Your task to perform on an android device: turn on translation in the chrome app Image 0: 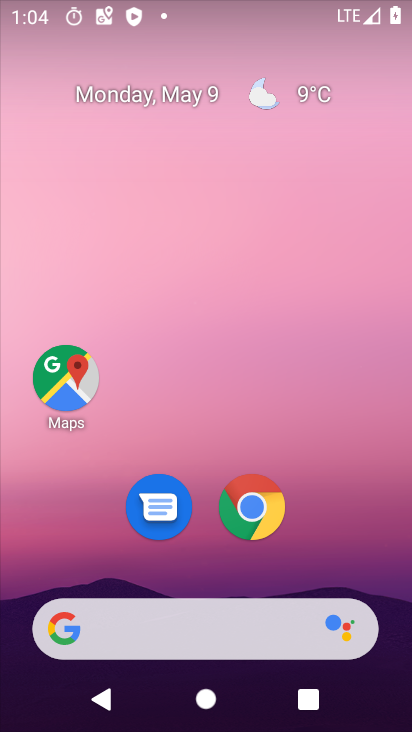
Step 0: click (246, 504)
Your task to perform on an android device: turn on translation in the chrome app Image 1: 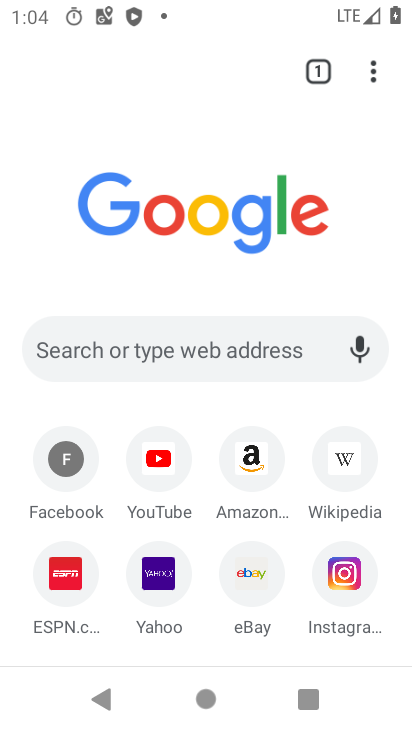
Step 1: click (373, 81)
Your task to perform on an android device: turn on translation in the chrome app Image 2: 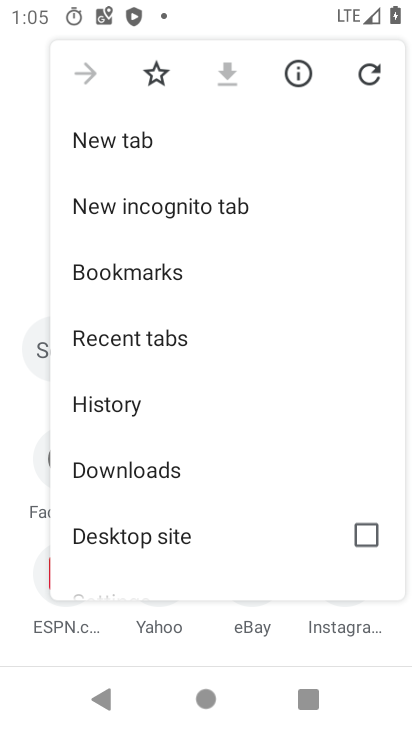
Step 2: drag from (172, 512) to (158, 242)
Your task to perform on an android device: turn on translation in the chrome app Image 3: 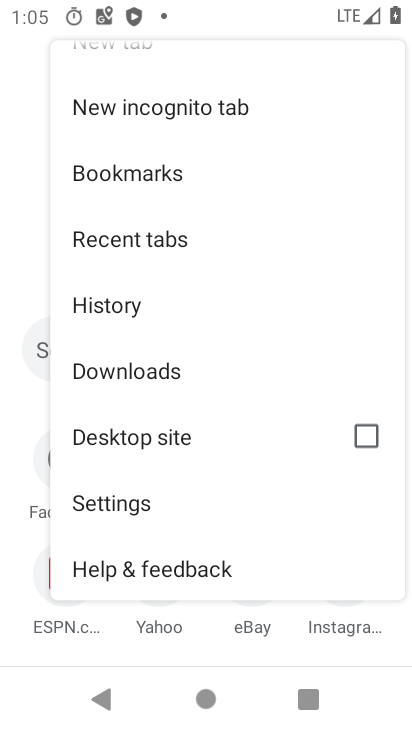
Step 3: click (115, 499)
Your task to perform on an android device: turn on translation in the chrome app Image 4: 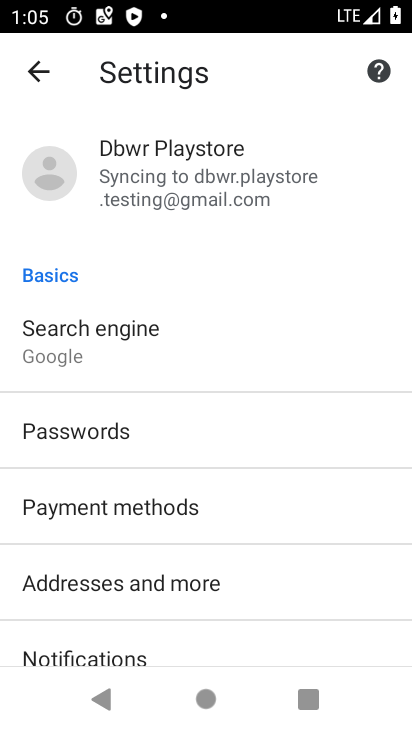
Step 4: drag from (193, 650) to (199, 319)
Your task to perform on an android device: turn on translation in the chrome app Image 5: 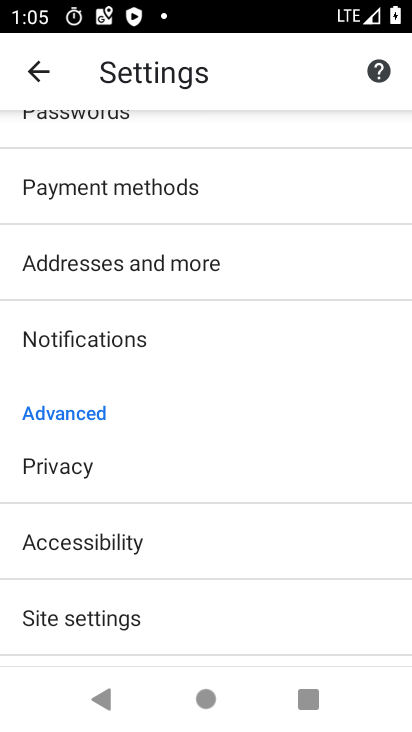
Step 5: drag from (194, 630) to (178, 454)
Your task to perform on an android device: turn on translation in the chrome app Image 6: 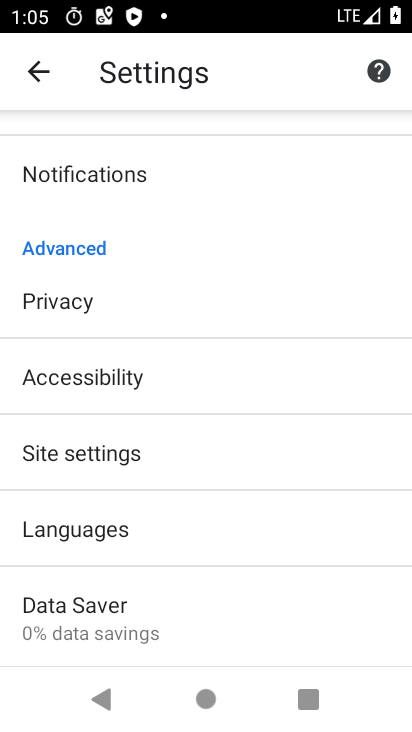
Step 6: click (89, 528)
Your task to perform on an android device: turn on translation in the chrome app Image 7: 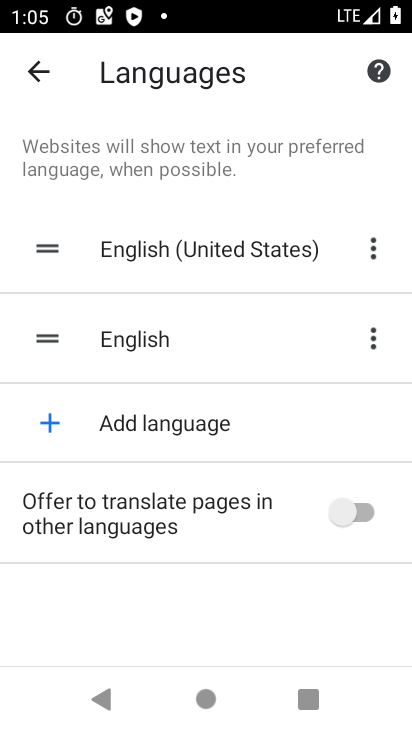
Step 7: click (365, 513)
Your task to perform on an android device: turn on translation in the chrome app Image 8: 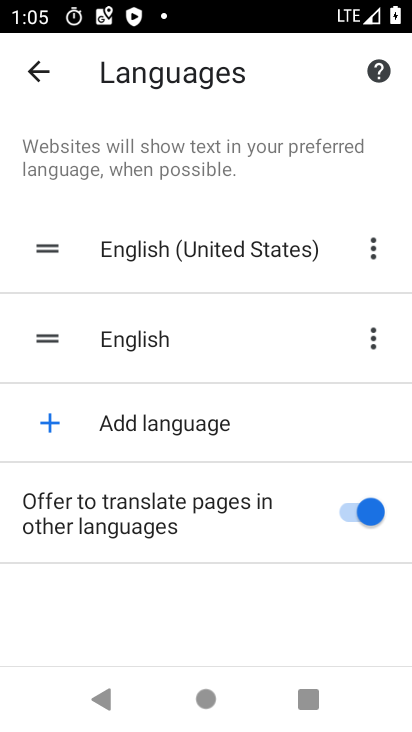
Step 8: task complete